Your task to perform on an android device: change the clock display to analog Image 0: 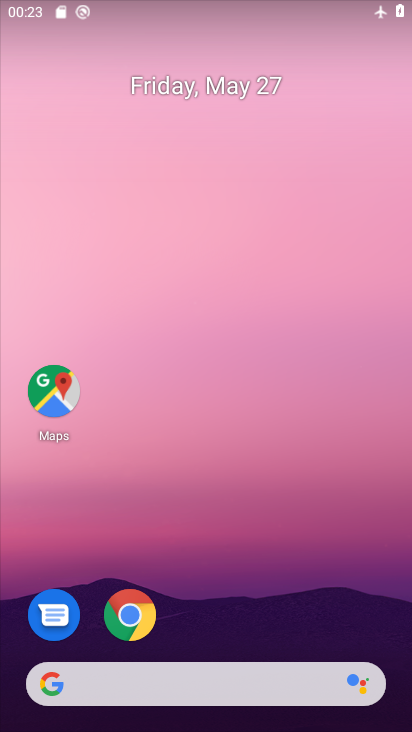
Step 0: click (379, 584)
Your task to perform on an android device: change the clock display to analog Image 1: 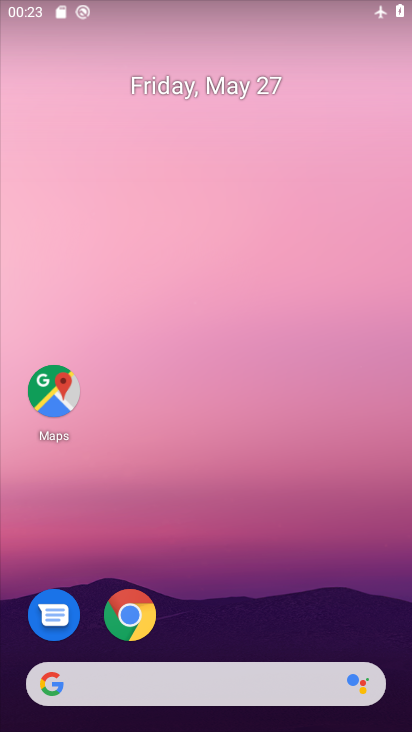
Step 1: drag from (270, 553) to (264, 156)
Your task to perform on an android device: change the clock display to analog Image 2: 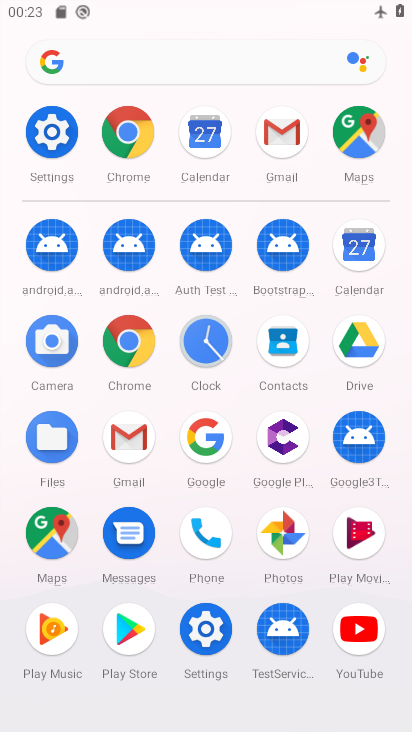
Step 2: click (219, 350)
Your task to perform on an android device: change the clock display to analog Image 3: 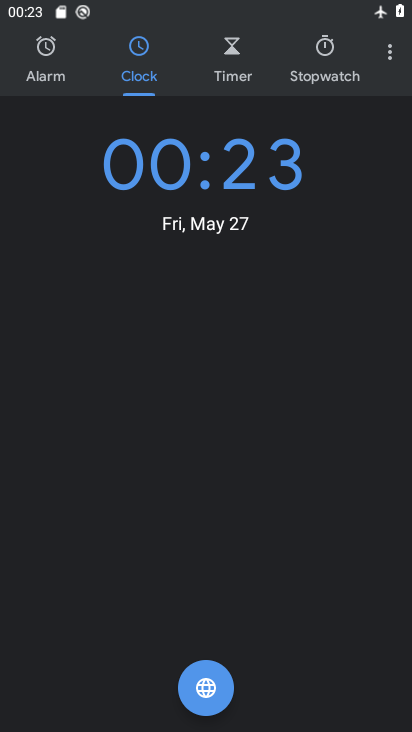
Step 3: click (389, 63)
Your task to perform on an android device: change the clock display to analog Image 4: 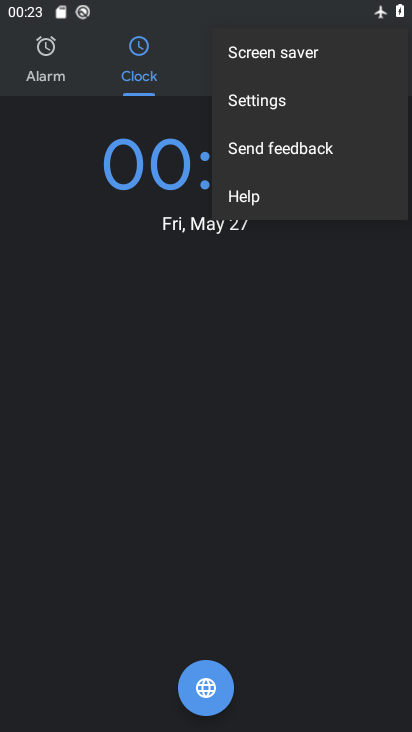
Step 4: click (289, 106)
Your task to perform on an android device: change the clock display to analog Image 5: 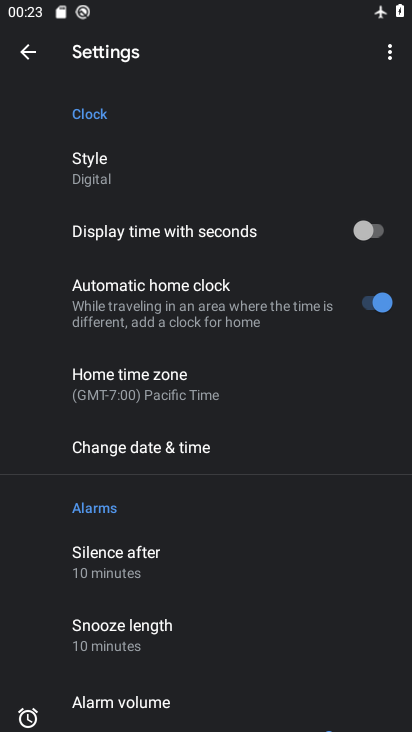
Step 5: drag from (311, 385) to (319, 319)
Your task to perform on an android device: change the clock display to analog Image 6: 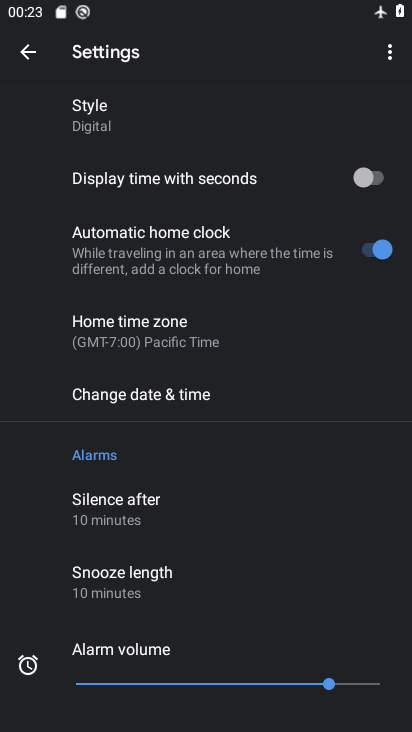
Step 6: drag from (348, 405) to (331, 375)
Your task to perform on an android device: change the clock display to analog Image 7: 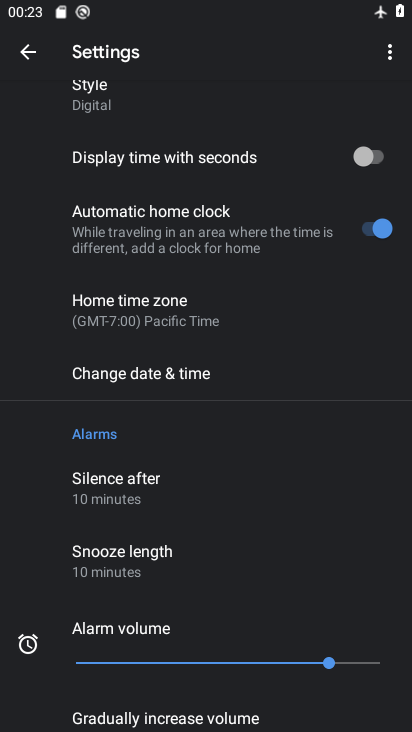
Step 7: drag from (343, 471) to (364, 336)
Your task to perform on an android device: change the clock display to analog Image 8: 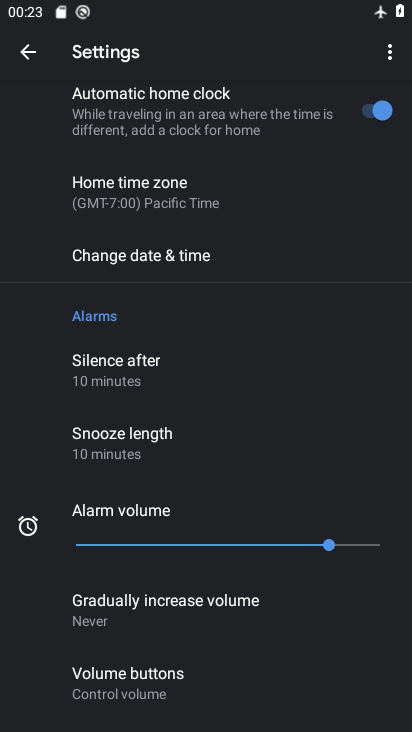
Step 8: drag from (377, 477) to (377, 356)
Your task to perform on an android device: change the clock display to analog Image 9: 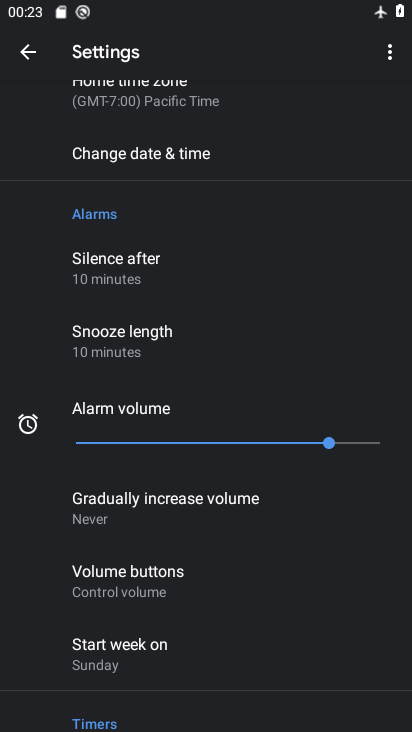
Step 9: drag from (351, 525) to (346, 379)
Your task to perform on an android device: change the clock display to analog Image 10: 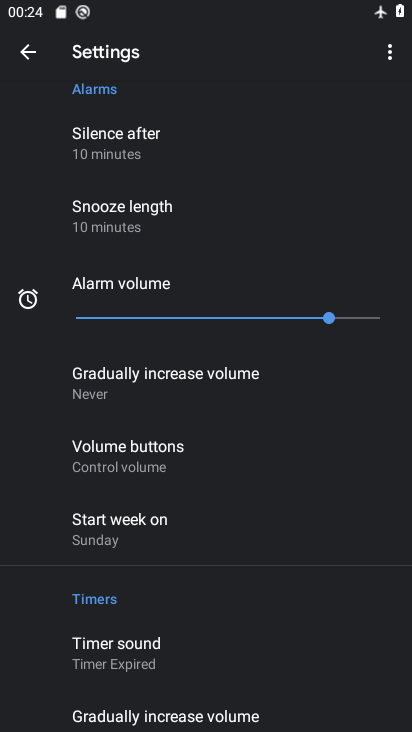
Step 10: drag from (347, 265) to (340, 368)
Your task to perform on an android device: change the clock display to analog Image 11: 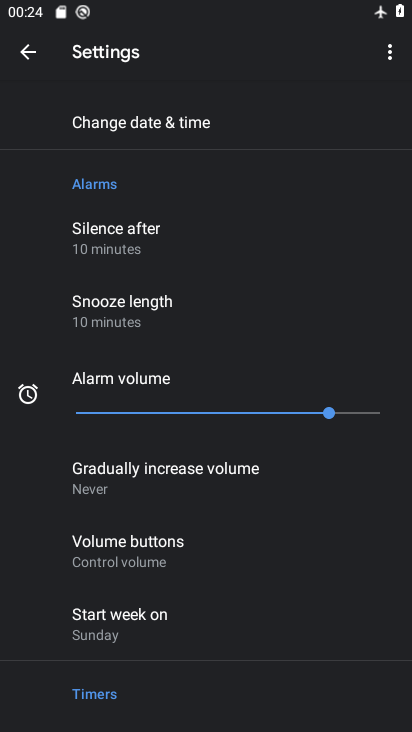
Step 11: drag from (331, 251) to (327, 347)
Your task to perform on an android device: change the clock display to analog Image 12: 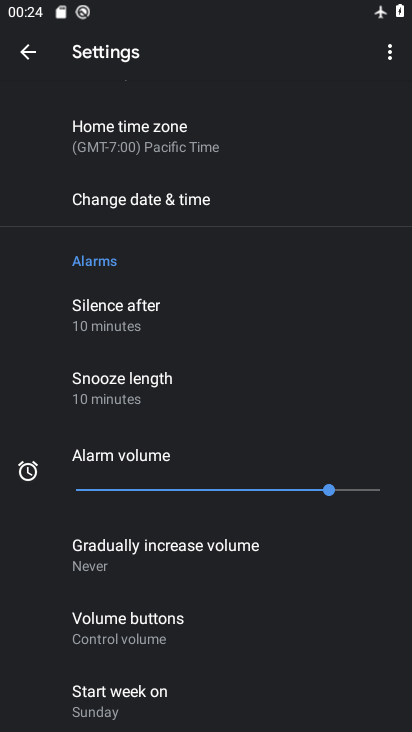
Step 12: drag from (351, 208) to (348, 325)
Your task to perform on an android device: change the clock display to analog Image 13: 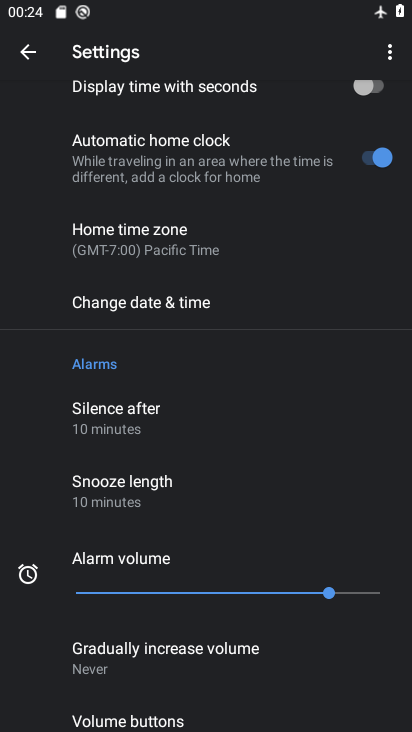
Step 13: drag from (332, 220) to (343, 303)
Your task to perform on an android device: change the clock display to analog Image 14: 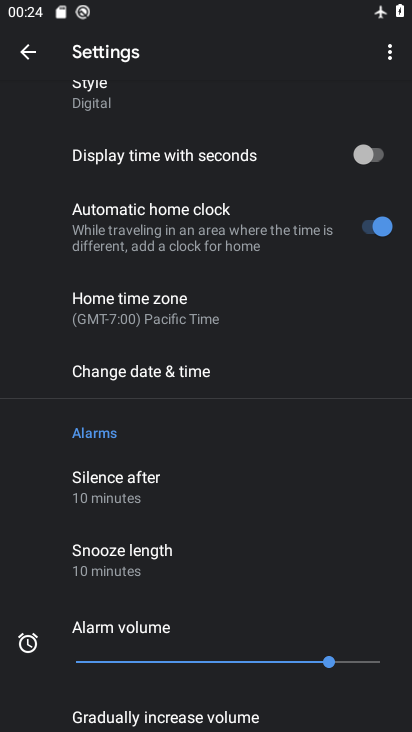
Step 14: drag from (320, 197) to (326, 300)
Your task to perform on an android device: change the clock display to analog Image 15: 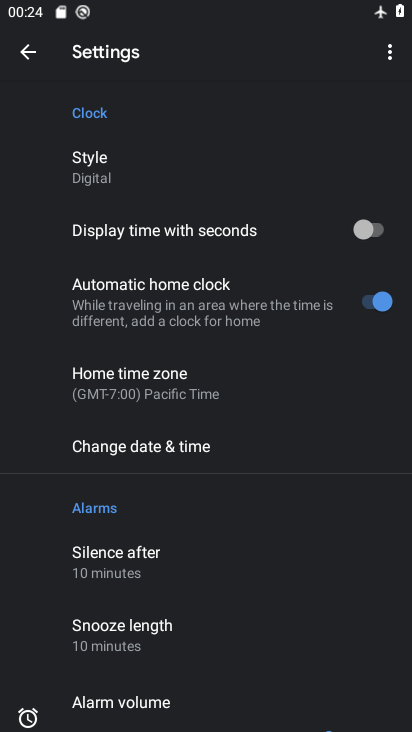
Step 15: click (131, 185)
Your task to perform on an android device: change the clock display to analog Image 16: 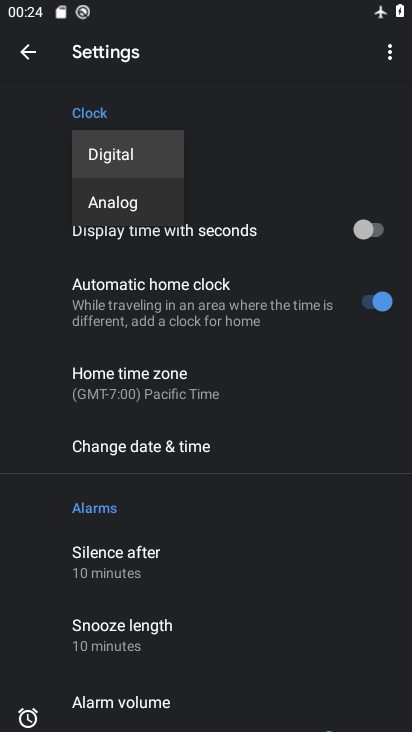
Step 16: click (136, 207)
Your task to perform on an android device: change the clock display to analog Image 17: 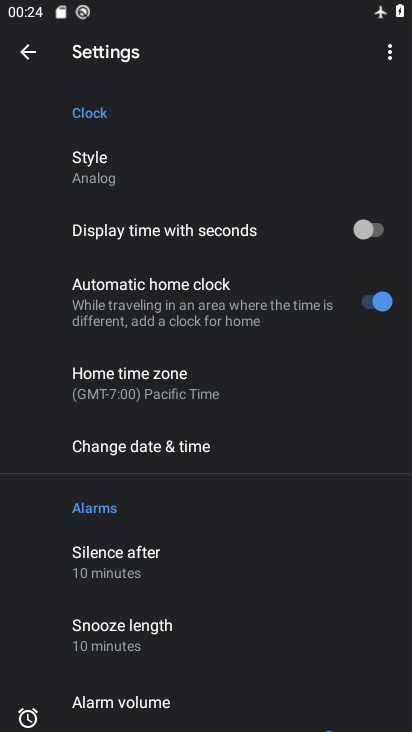
Step 17: task complete